Your task to perform on an android device: visit the assistant section in the google photos Image 0: 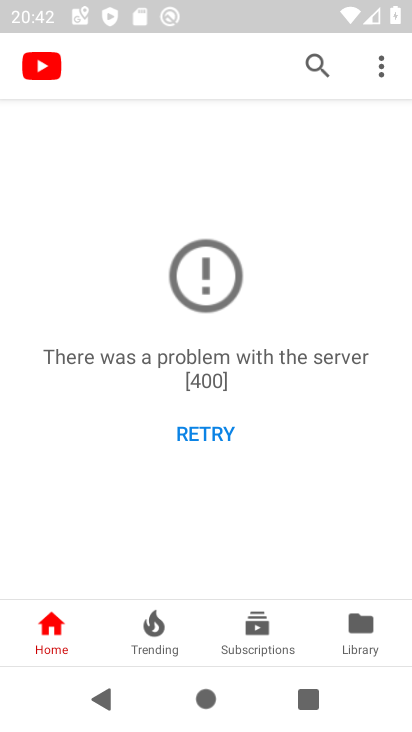
Step 0: press back button
Your task to perform on an android device: visit the assistant section in the google photos Image 1: 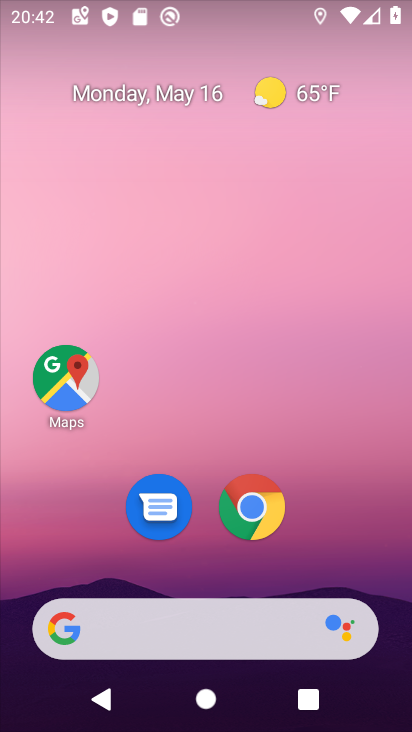
Step 1: drag from (194, 568) to (168, 6)
Your task to perform on an android device: visit the assistant section in the google photos Image 2: 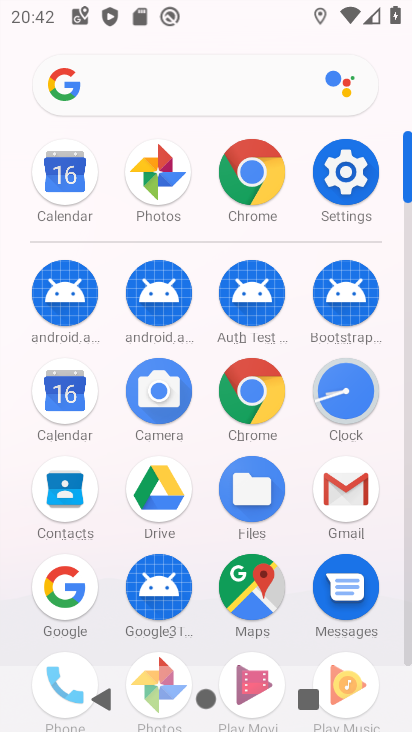
Step 2: click (152, 657)
Your task to perform on an android device: visit the assistant section in the google photos Image 3: 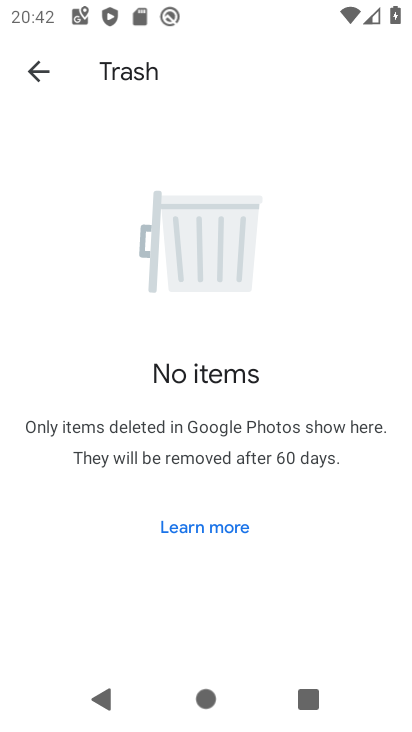
Step 3: click (33, 83)
Your task to perform on an android device: visit the assistant section in the google photos Image 4: 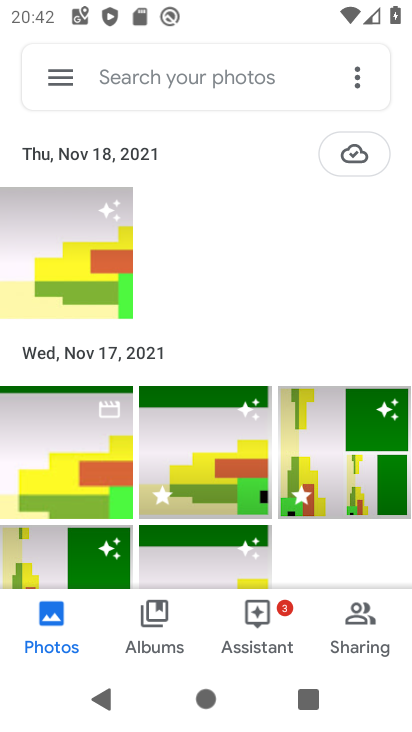
Step 4: click (256, 628)
Your task to perform on an android device: visit the assistant section in the google photos Image 5: 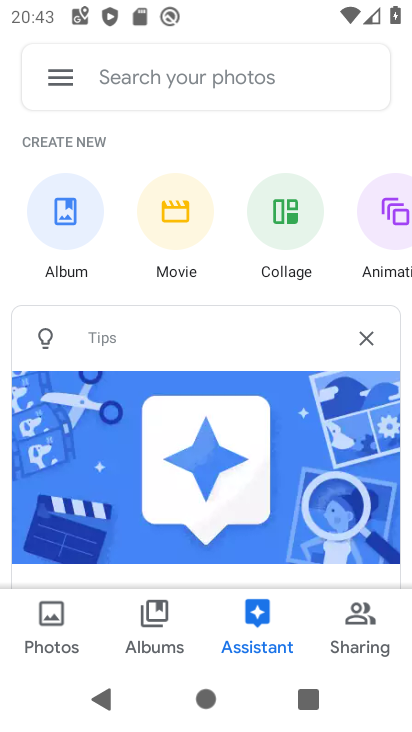
Step 5: task complete